Your task to perform on an android device: open app "Reddit" Image 0: 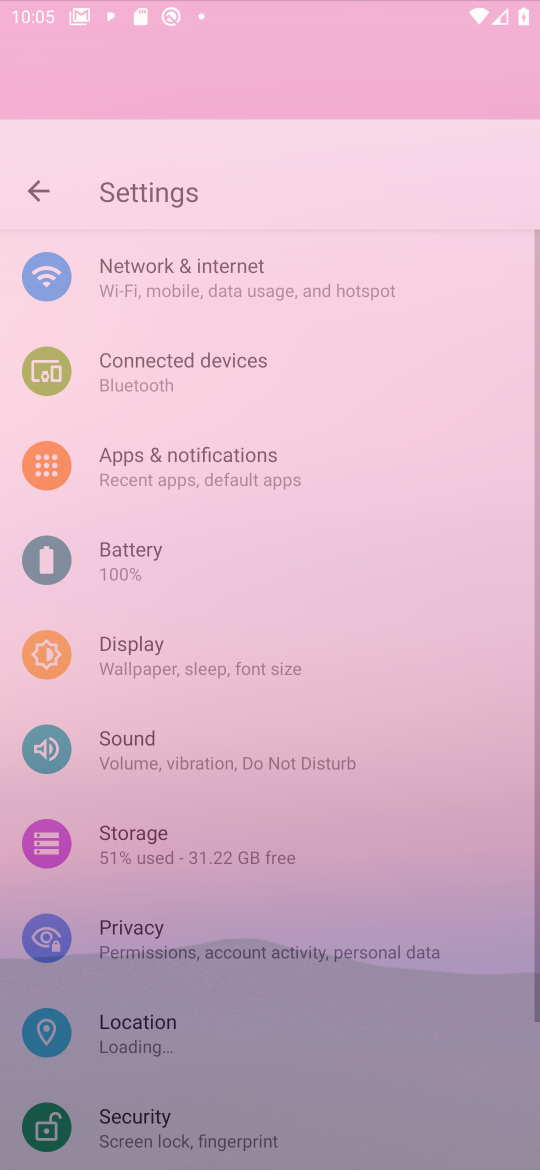
Step 0: press home button
Your task to perform on an android device: open app "Reddit" Image 1: 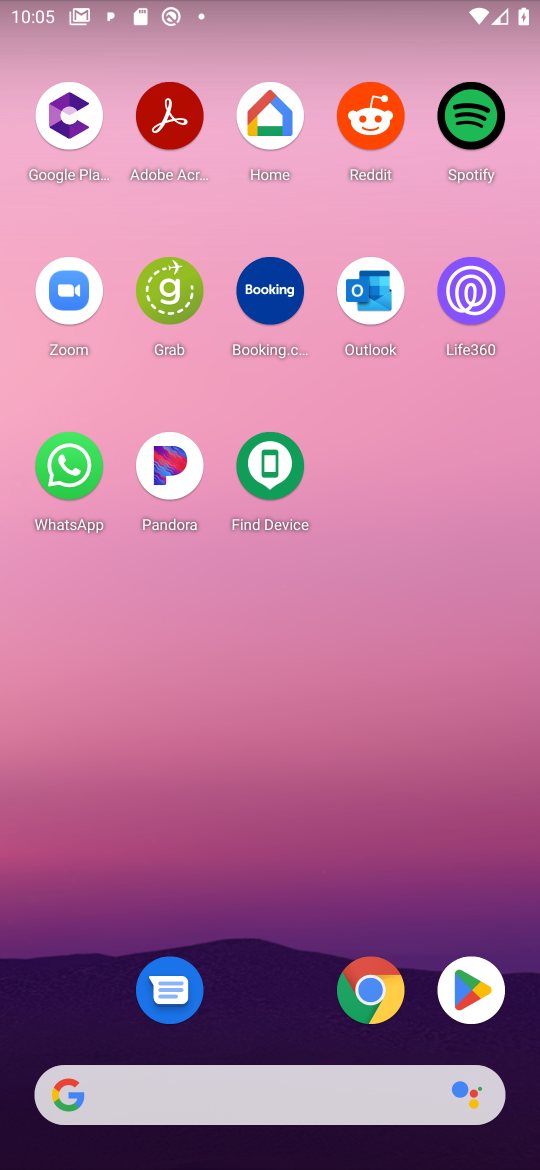
Step 1: click (481, 986)
Your task to perform on an android device: open app "Reddit" Image 2: 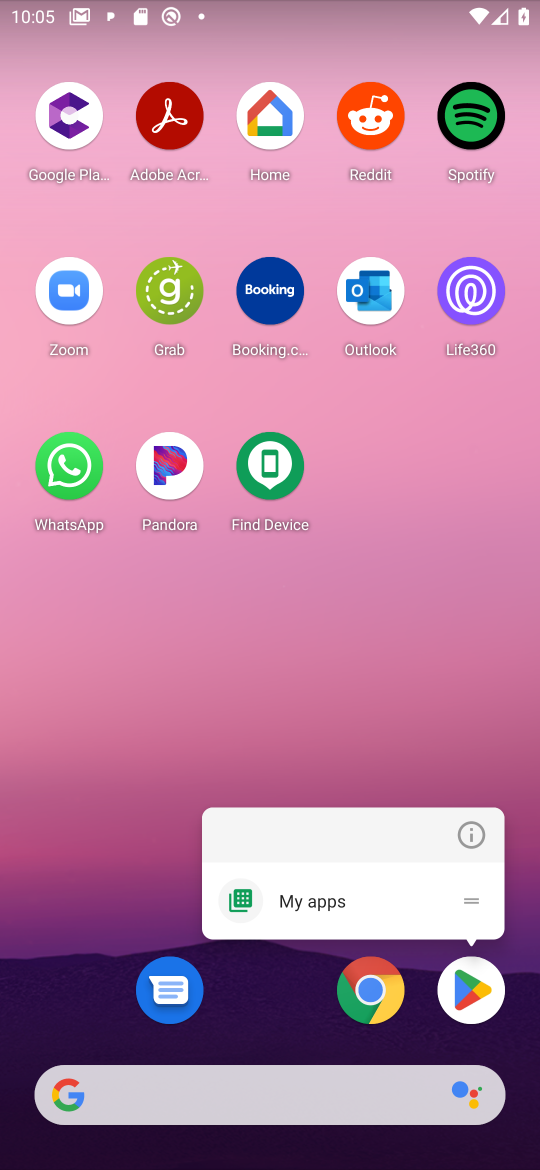
Step 2: click (476, 989)
Your task to perform on an android device: open app "Reddit" Image 3: 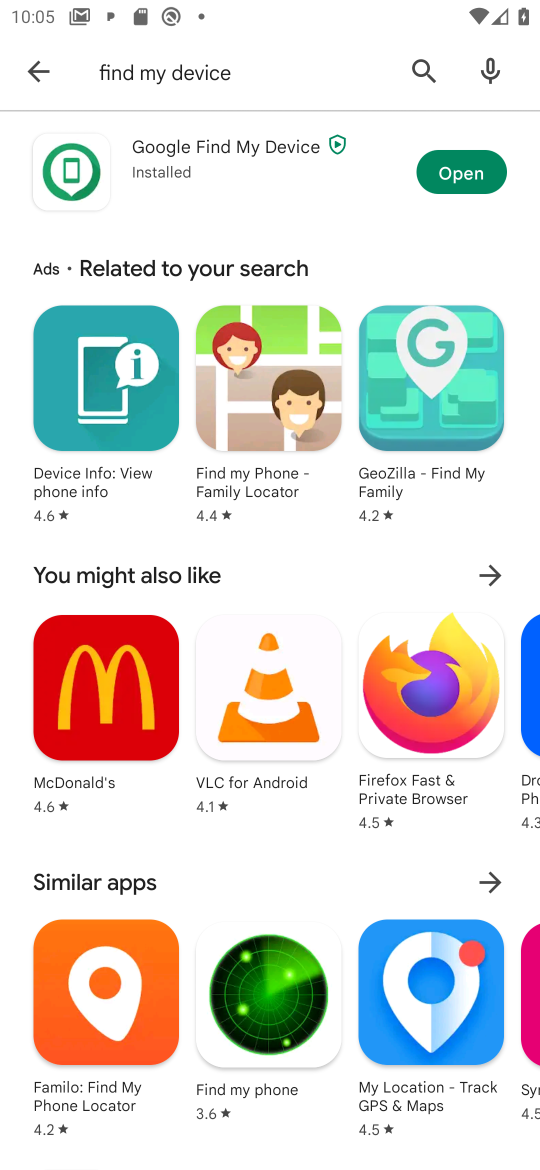
Step 3: click (422, 78)
Your task to perform on an android device: open app "Reddit" Image 4: 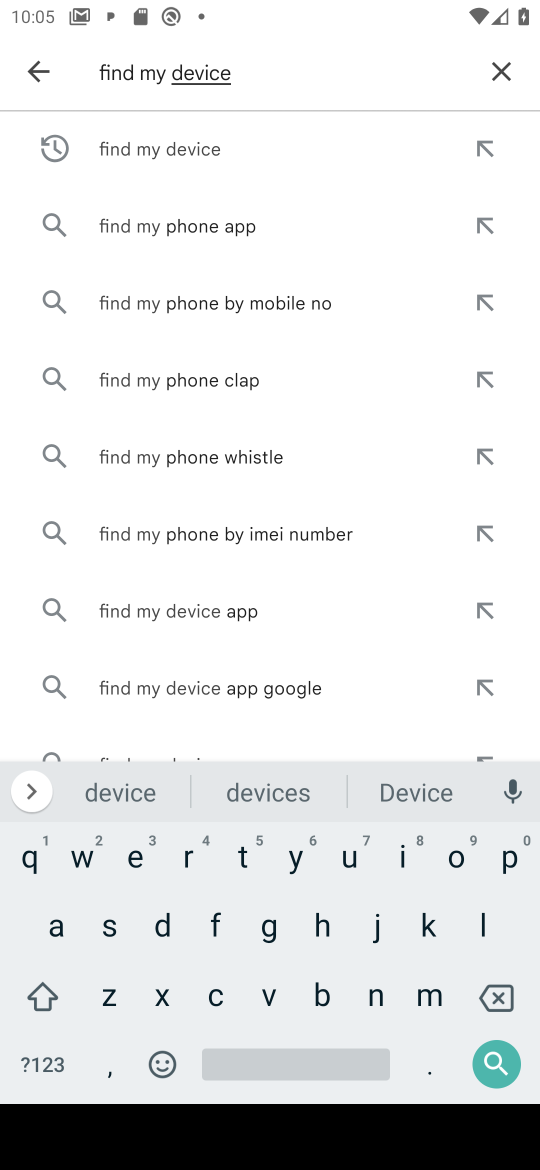
Step 4: click (498, 74)
Your task to perform on an android device: open app "Reddit" Image 5: 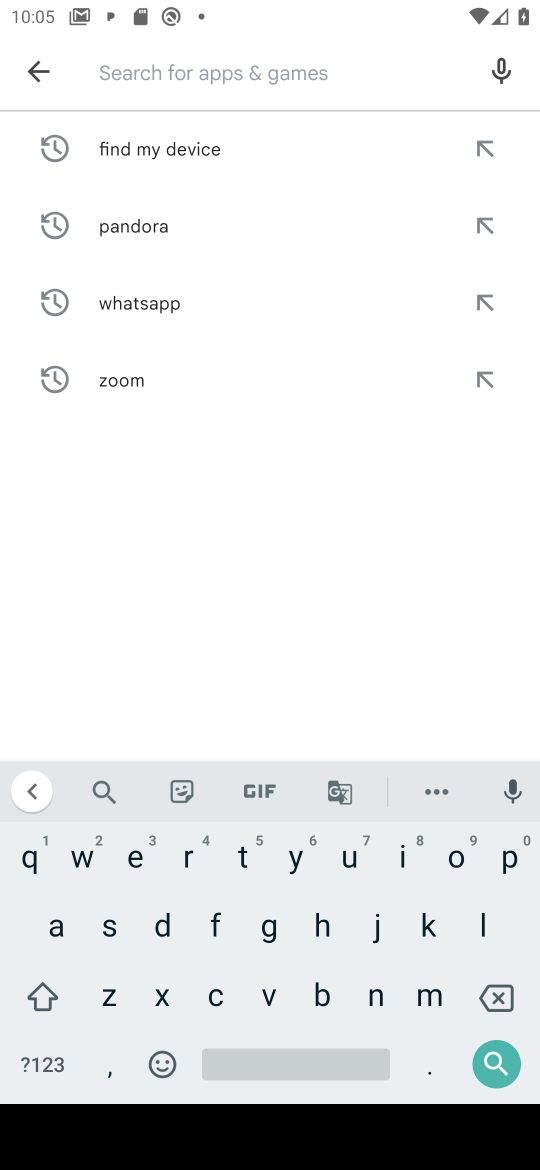
Step 5: click (187, 852)
Your task to perform on an android device: open app "Reddit" Image 6: 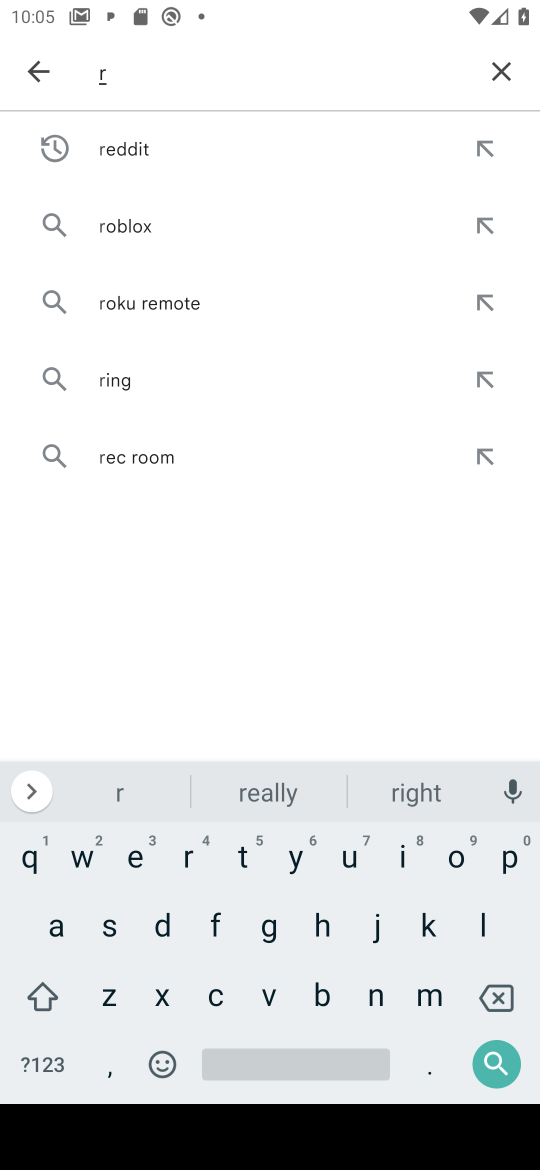
Step 6: click (128, 847)
Your task to perform on an android device: open app "Reddit" Image 7: 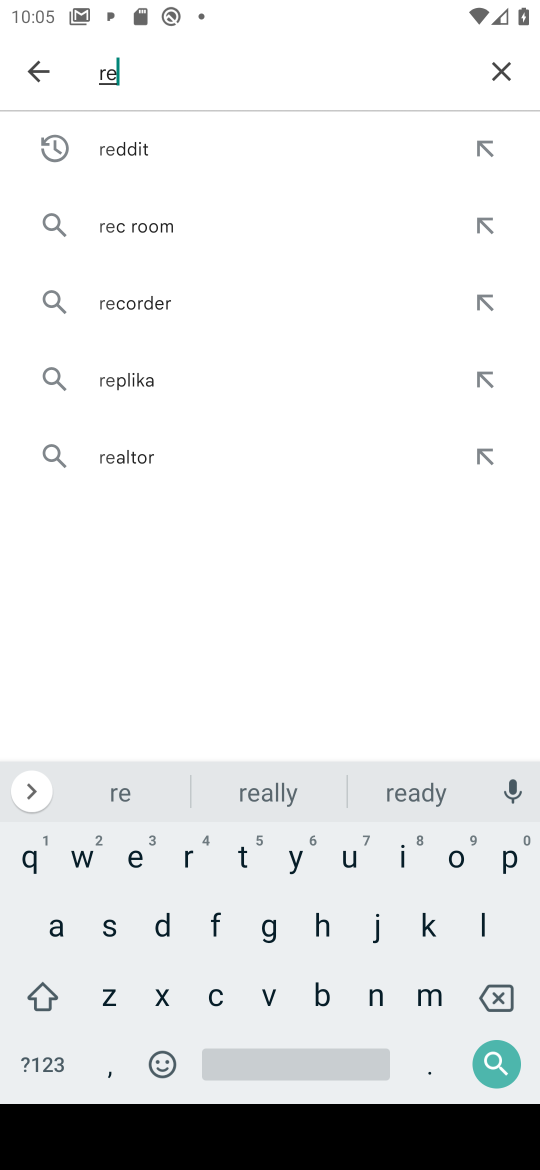
Step 7: click (147, 139)
Your task to perform on an android device: open app "Reddit" Image 8: 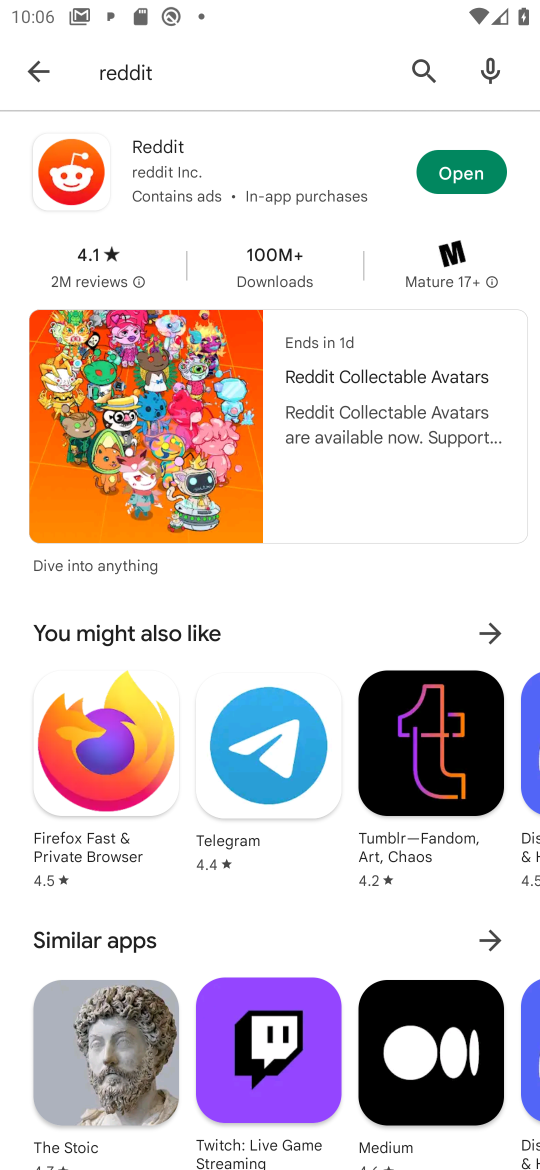
Step 8: click (452, 175)
Your task to perform on an android device: open app "Reddit" Image 9: 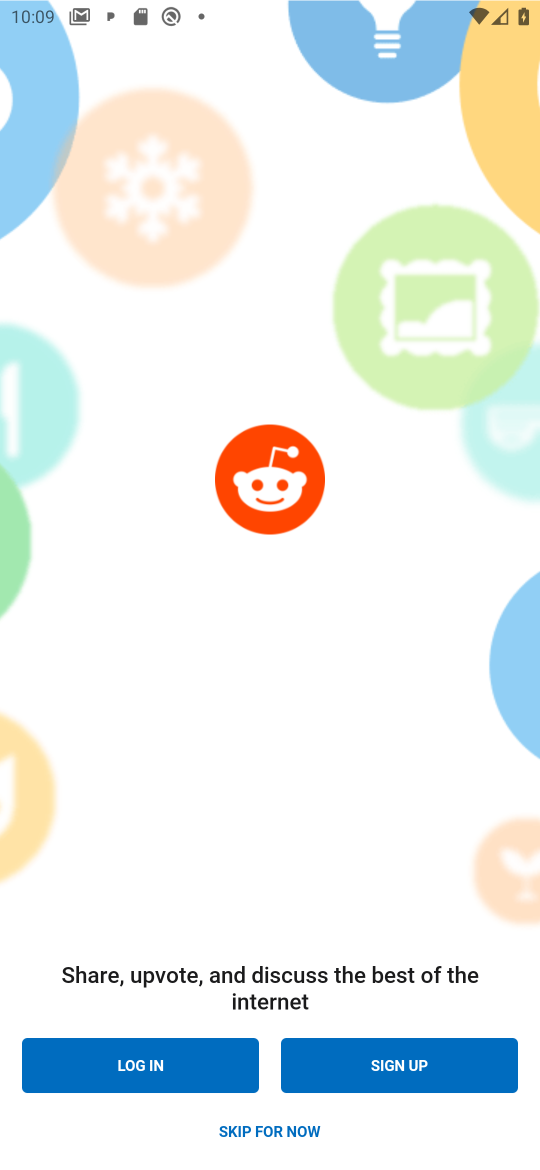
Step 9: task complete